Your task to perform on an android device: create a new album in the google photos Image 0: 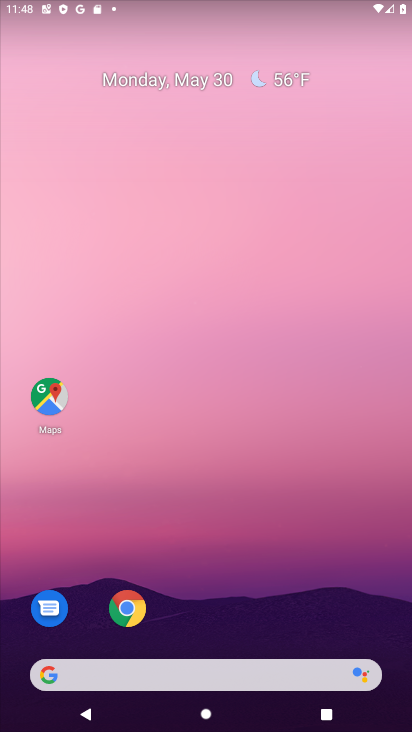
Step 0: drag from (221, 621) to (281, 142)
Your task to perform on an android device: create a new album in the google photos Image 1: 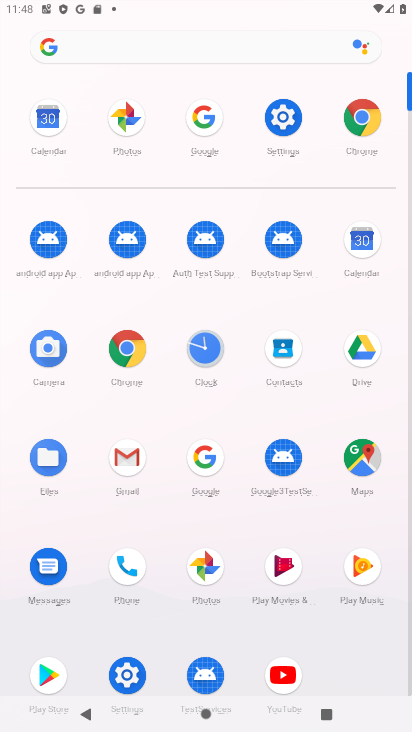
Step 1: click (124, 115)
Your task to perform on an android device: create a new album in the google photos Image 2: 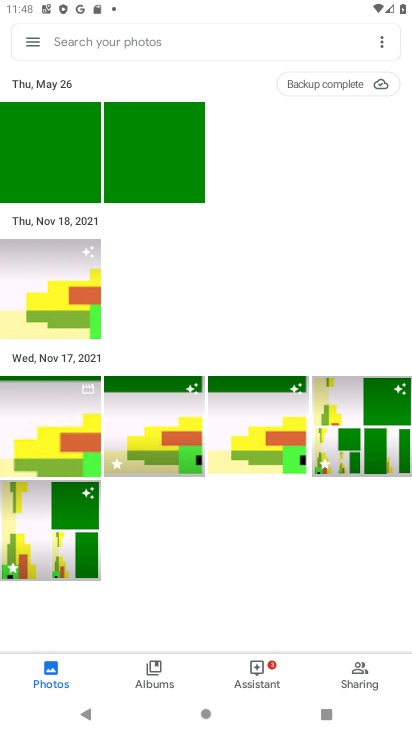
Step 2: click (158, 682)
Your task to perform on an android device: create a new album in the google photos Image 3: 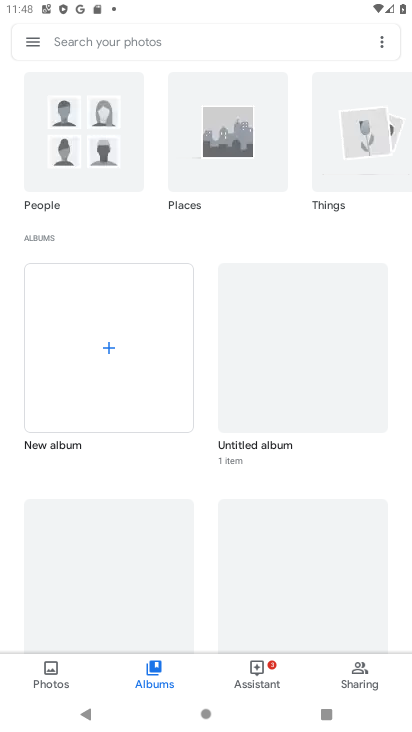
Step 3: click (378, 37)
Your task to perform on an android device: create a new album in the google photos Image 4: 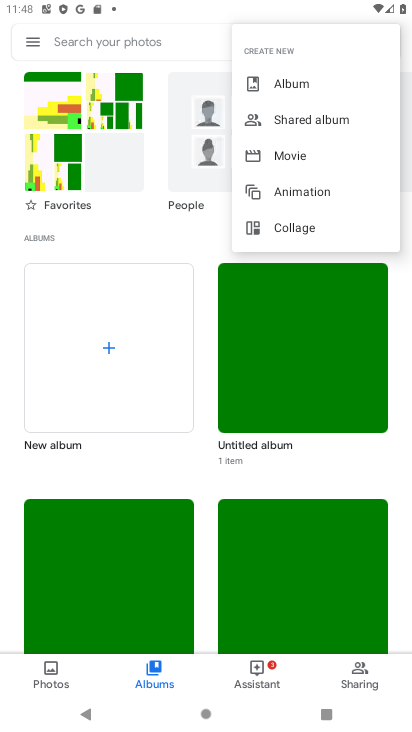
Step 4: click (125, 353)
Your task to perform on an android device: create a new album in the google photos Image 5: 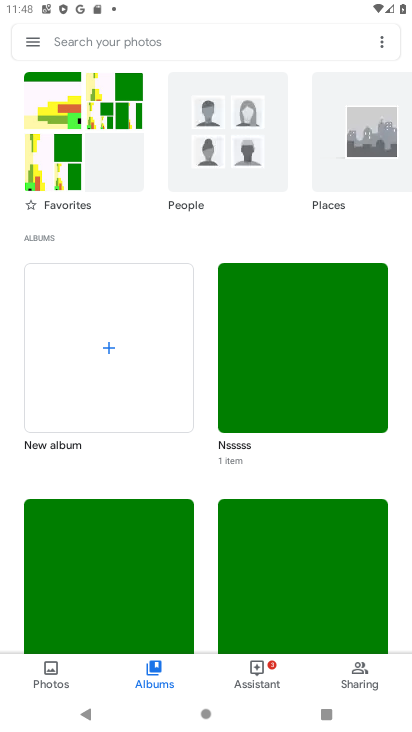
Step 5: click (102, 352)
Your task to perform on an android device: create a new album in the google photos Image 6: 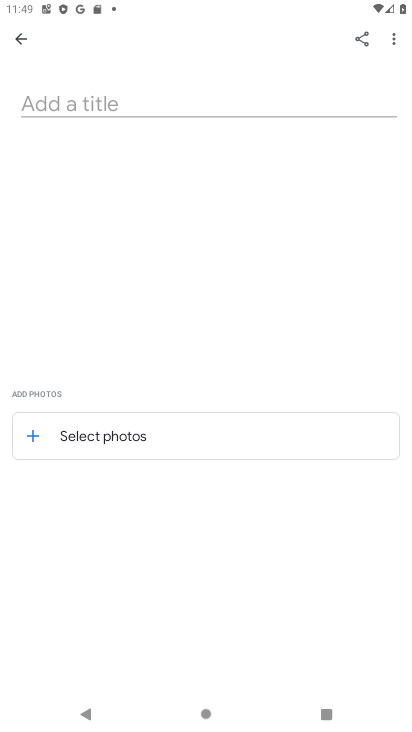
Step 6: click (159, 105)
Your task to perform on an android device: create a new album in the google photos Image 7: 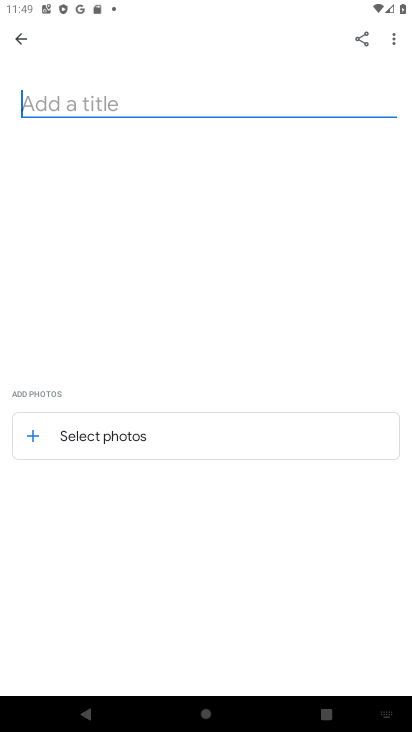
Step 7: type "rrrrrrrrrrrr"
Your task to perform on an android device: create a new album in the google photos Image 8: 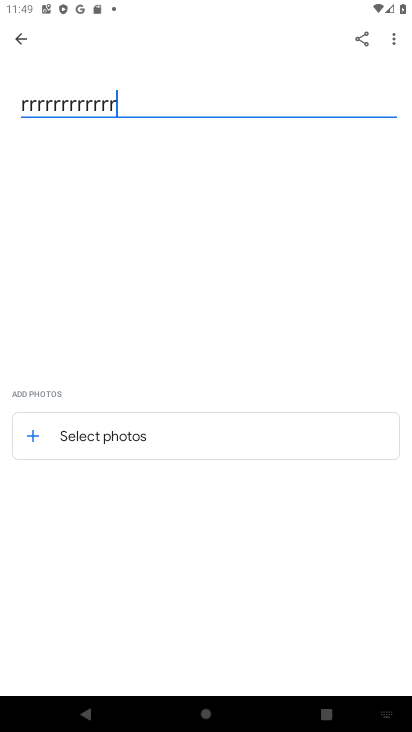
Step 8: click (23, 438)
Your task to perform on an android device: create a new album in the google photos Image 9: 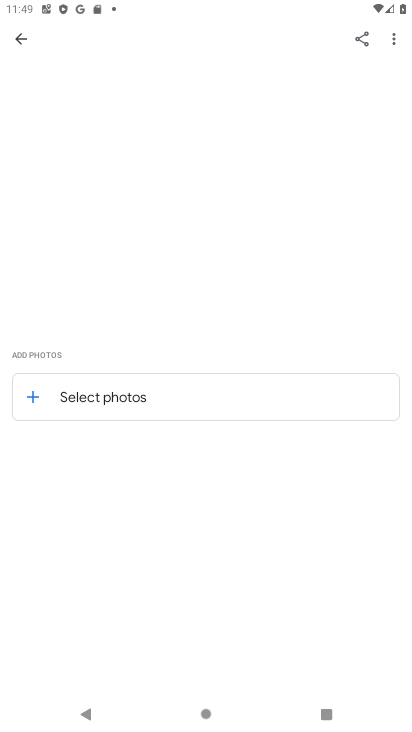
Step 9: click (35, 396)
Your task to perform on an android device: create a new album in the google photos Image 10: 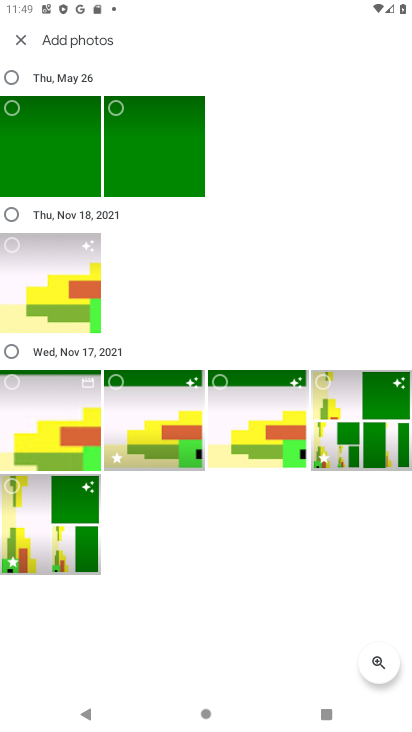
Step 10: click (25, 245)
Your task to perform on an android device: create a new album in the google photos Image 11: 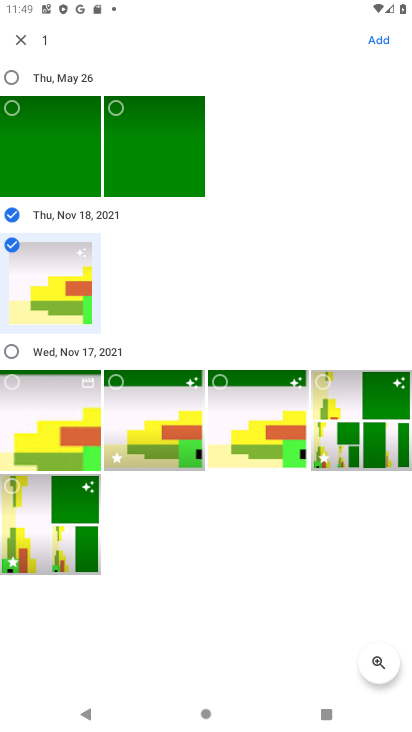
Step 11: click (365, 45)
Your task to perform on an android device: create a new album in the google photos Image 12: 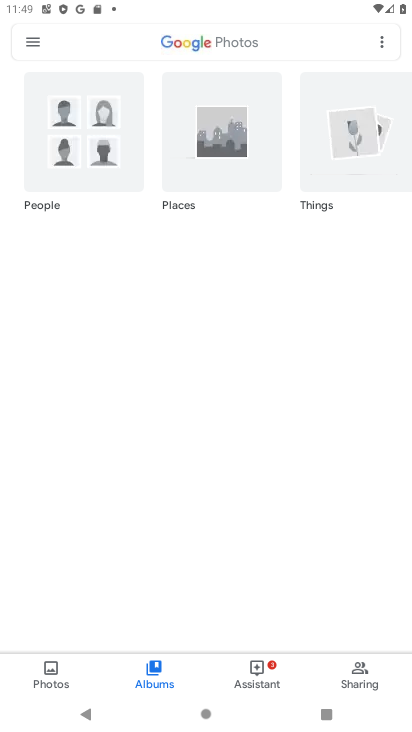
Step 12: task complete